Your task to perform on an android device: allow notifications from all sites in the chrome app Image 0: 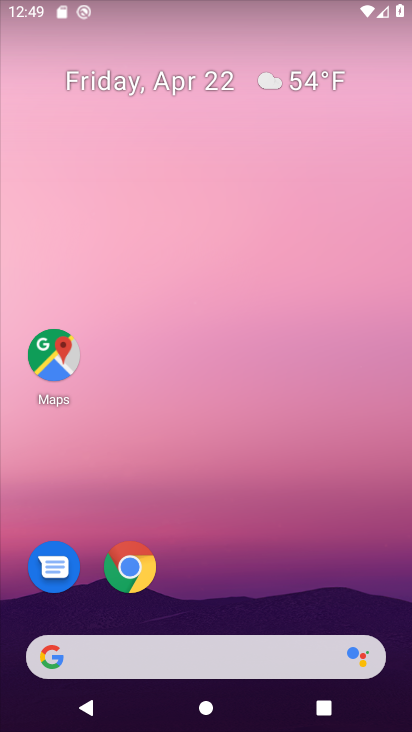
Step 0: drag from (287, 616) to (282, 49)
Your task to perform on an android device: allow notifications from all sites in the chrome app Image 1: 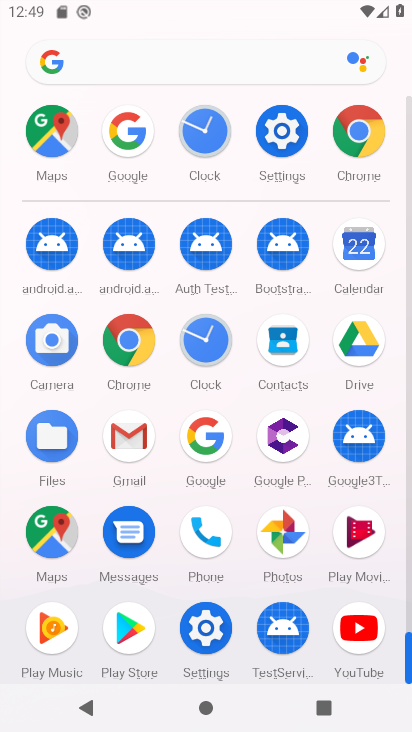
Step 1: click (355, 151)
Your task to perform on an android device: allow notifications from all sites in the chrome app Image 2: 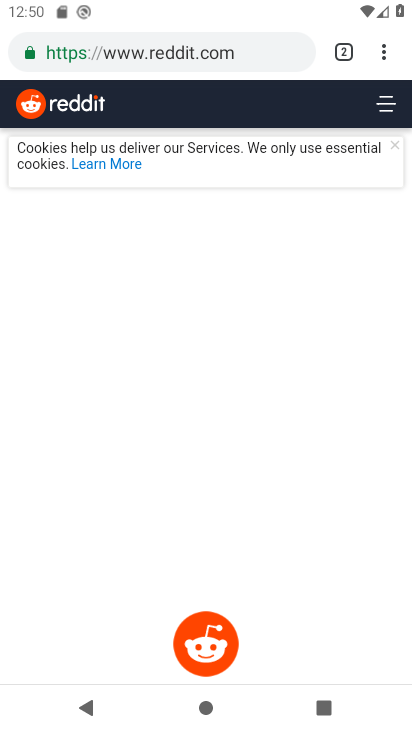
Step 2: click (389, 55)
Your task to perform on an android device: allow notifications from all sites in the chrome app Image 3: 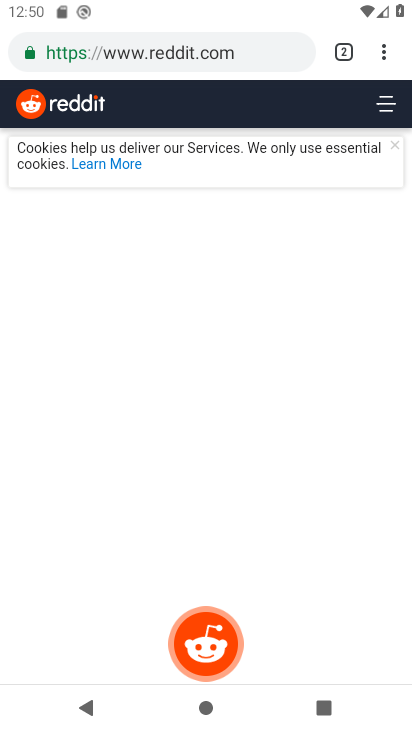
Step 3: click (387, 58)
Your task to perform on an android device: allow notifications from all sites in the chrome app Image 4: 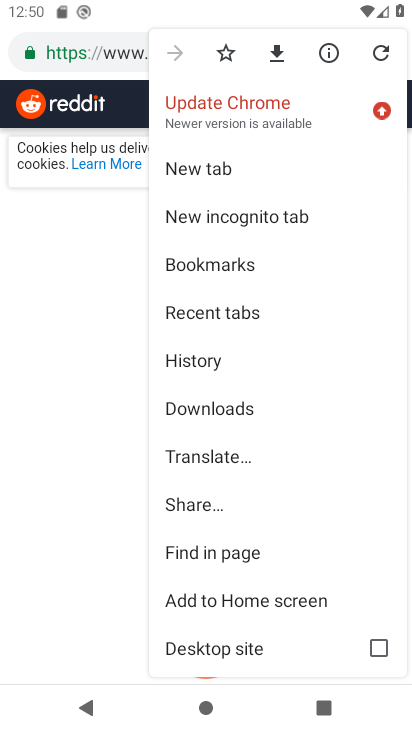
Step 4: drag from (354, 354) to (411, 103)
Your task to perform on an android device: allow notifications from all sites in the chrome app Image 5: 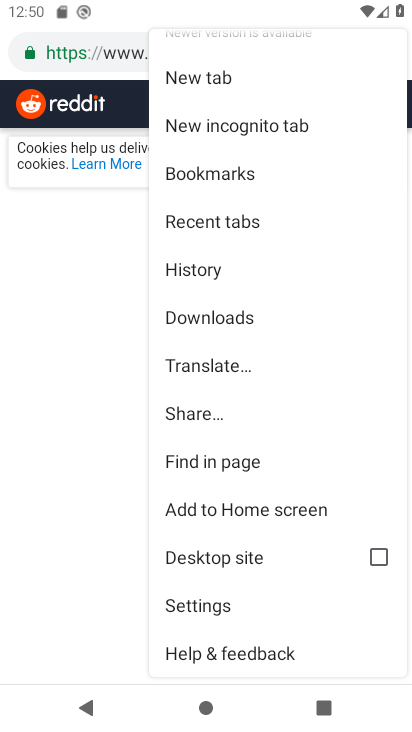
Step 5: click (259, 612)
Your task to perform on an android device: allow notifications from all sites in the chrome app Image 6: 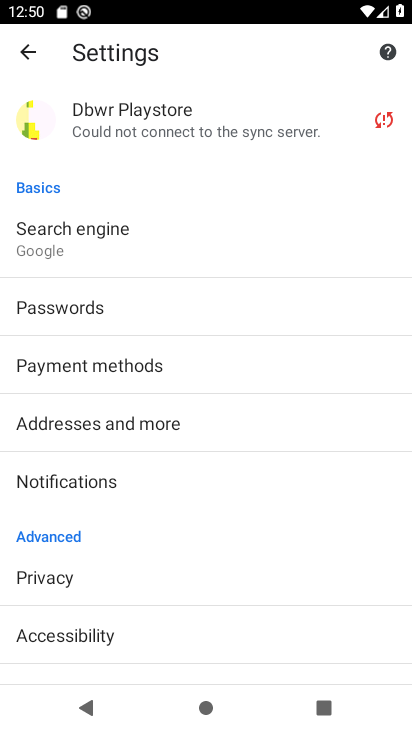
Step 6: drag from (265, 564) to (319, 147)
Your task to perform on an android device: allow notifications from all sites in the chrome app Image 7: 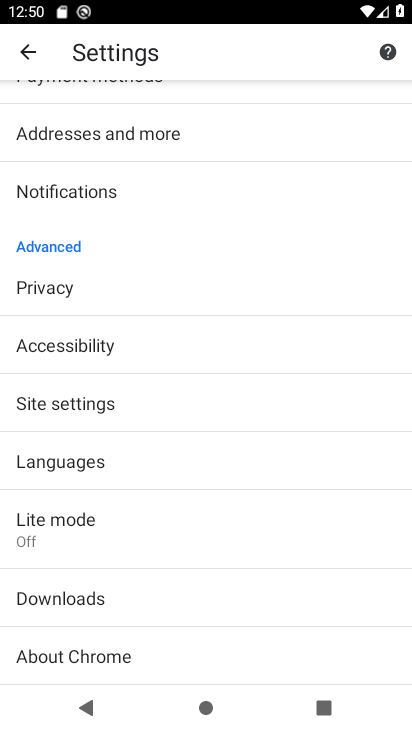
Step 7: click (132, 192)
Your task to perform on an android device: allow notifications from all sites in the chrome app Image 8: 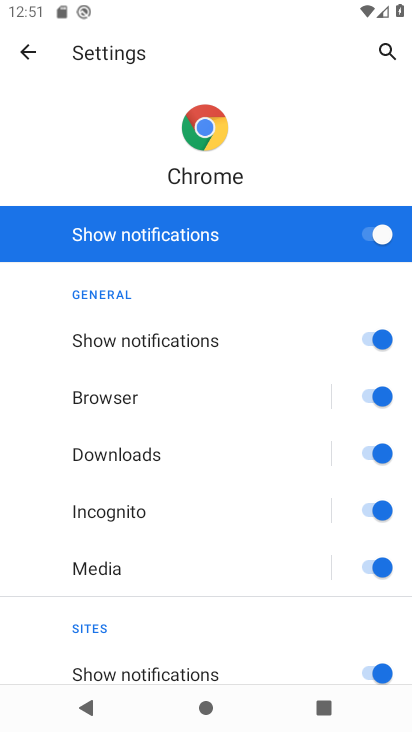
Step 8: task complete